Your task to perform on an android device: Open battery settings Image 0: 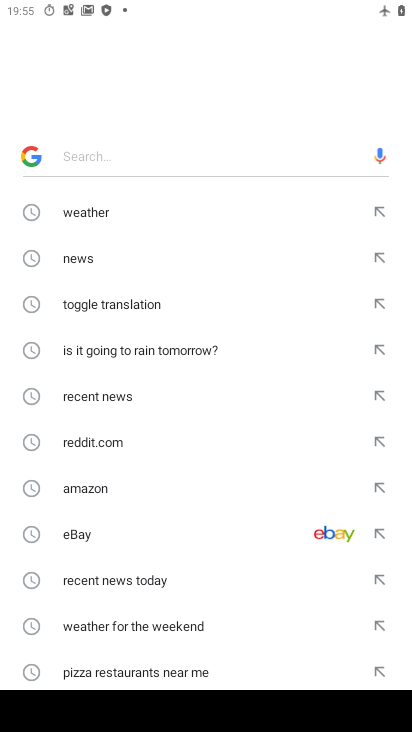
Step 0: press home button
Your task to perform on an android device: Open battery settings Image 1: 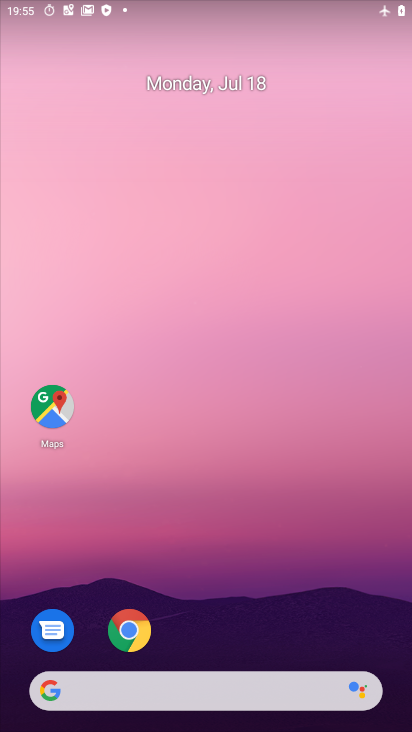
Step 1: drag from (273, 604) to (131, 1)
Your task to perform on an android device: Open battery settings Image 2: 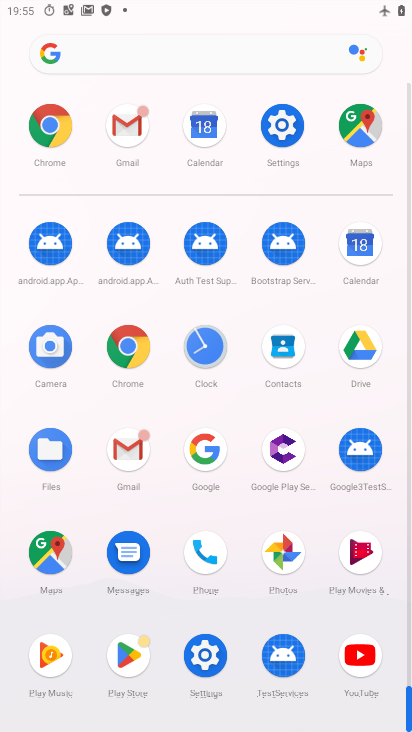
Step 2: click (286, 142)
Your task to perform on an android device: Open battery settings Image 3: 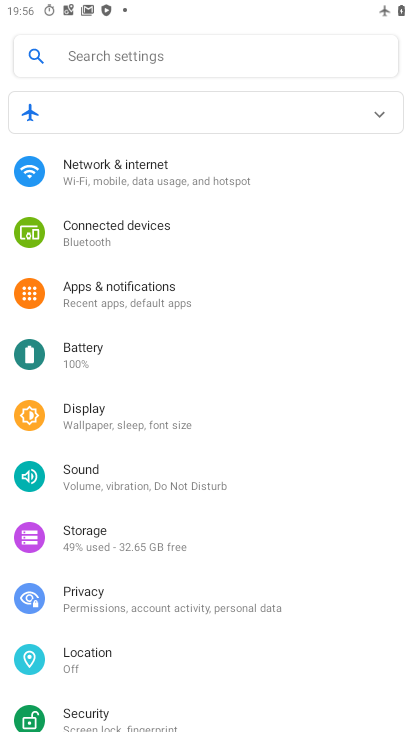
Step 3: click (89, 348)
Your task to perform on an android device: Open battery settings Image 4: 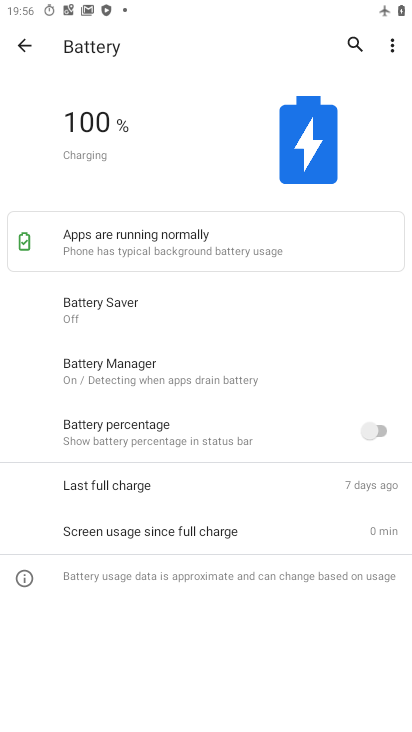
Step 4: task complete